Your task to perform on an android device: Open the web browser Image 0: 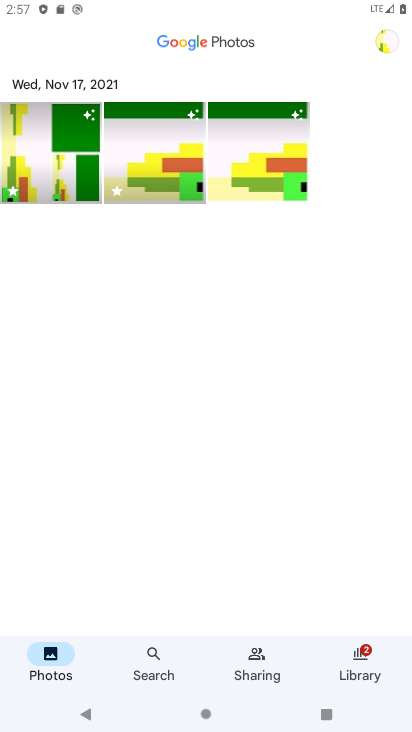
Step 0: press home button
Your task to perform on an android device: Open the web browser Image 1: 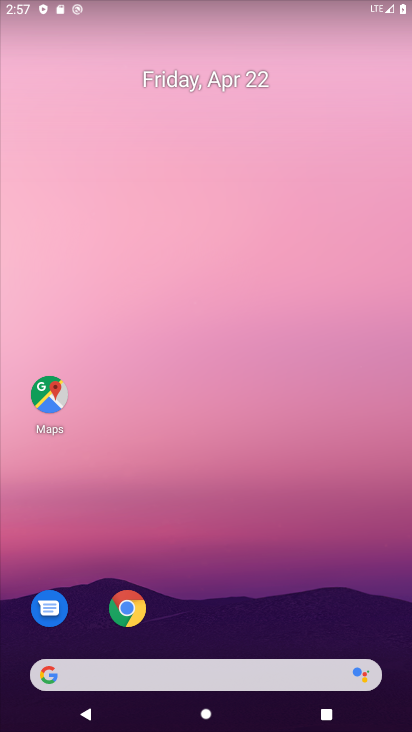
Step 1: drag from (284, 650) to (250, 162)
Your task to perform on an android device: Open the web browser Image 2: 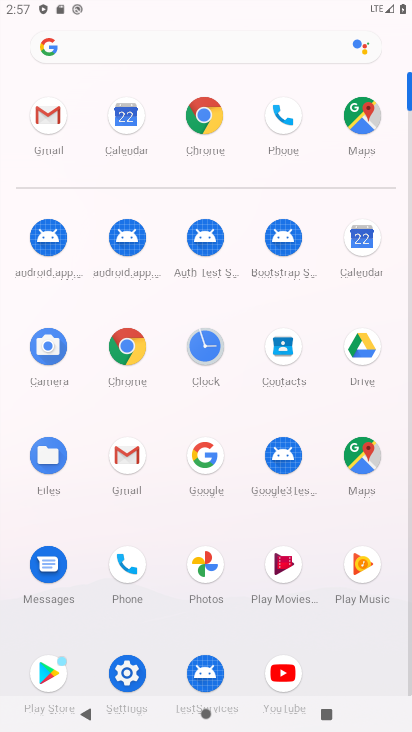
Step 2: click (130, 358)
Your task to perform on an android device: Open the web browser Image 3: 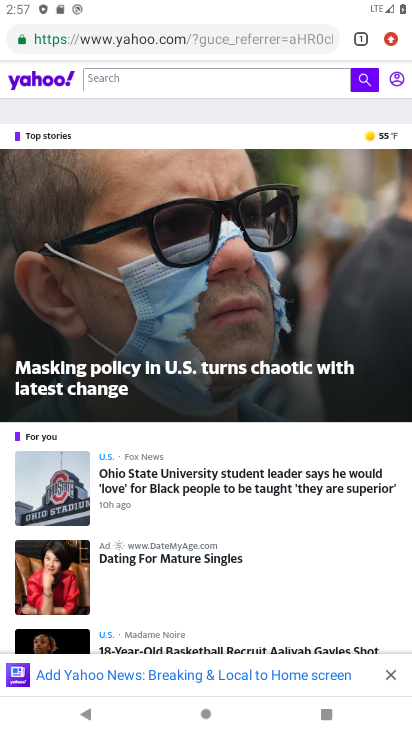
Step 3: click (195, 48)
Your task to perform on an android device: Open the web browser Image 4: 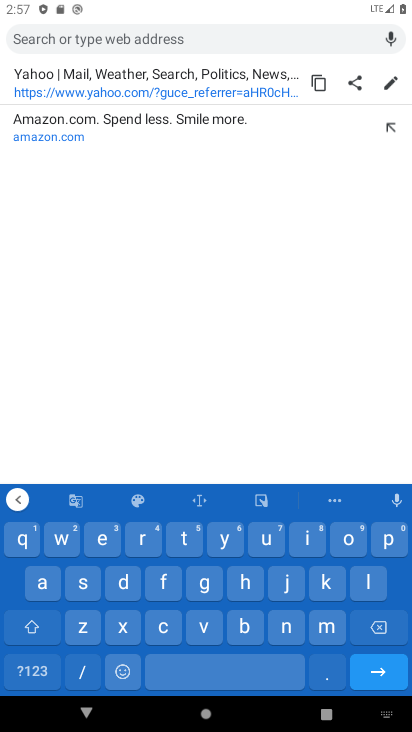
Step 4: task complete